Your task to perform on an android device: change alarm snooze length Image 0: 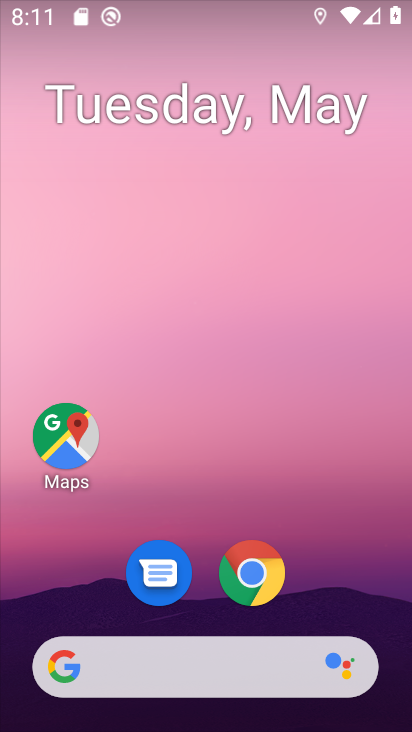
Step 0: drag from (392, 690) to (374, 325)
Your task to perform on an android device: change alarm snooze length Image 1: 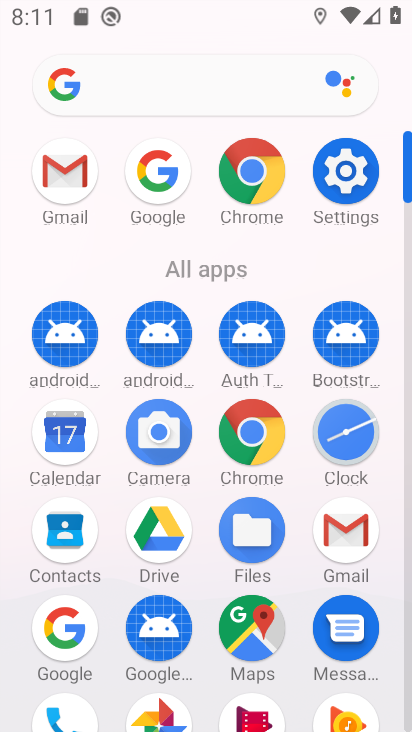
Step 1: click (342, 453)
Your task to perform on an android device: change alarm snooze length Image 2: 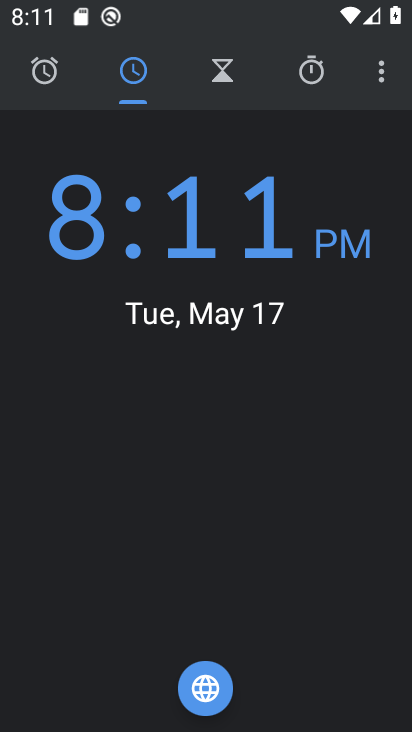
Step 2: click (379, 71)
Your task to perform on an android device: change alarm snooze length Image 3: 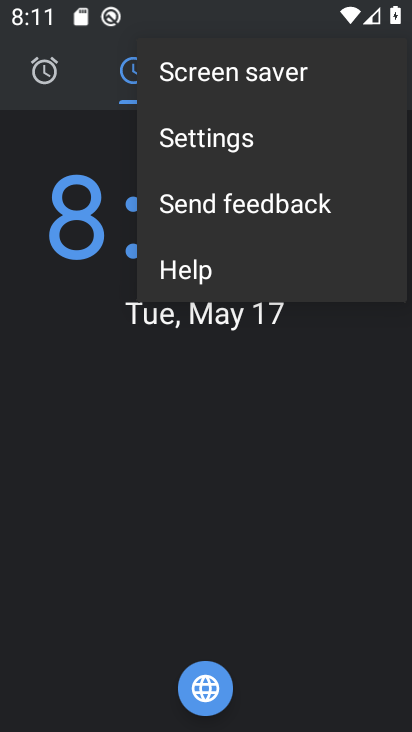
Step 3: click (186, 150)
Your task to perform on an android device: change alarm snooze length Image 4: 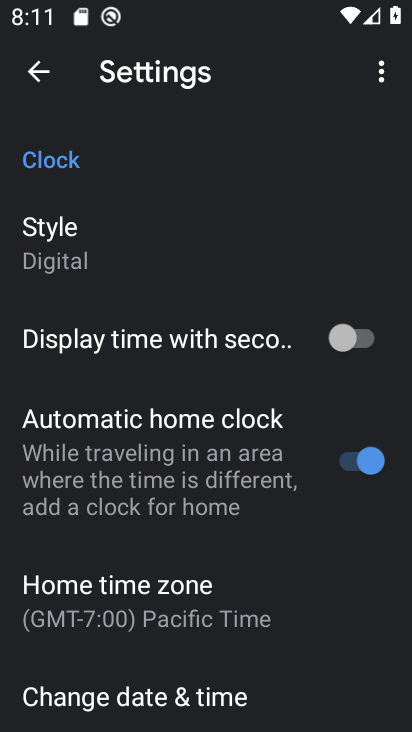
Step 4: drag from (275, 651) to (325, 309)
Your task to perform on an android device: change alarm snooze length Image 5: 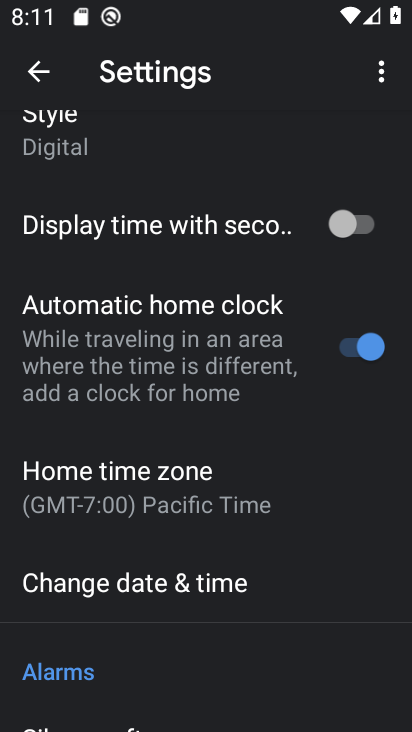
Step 5: drag from (183, 670) to (214, 440)
Your task to perform on an android device: change alarm snooze length Image 6: 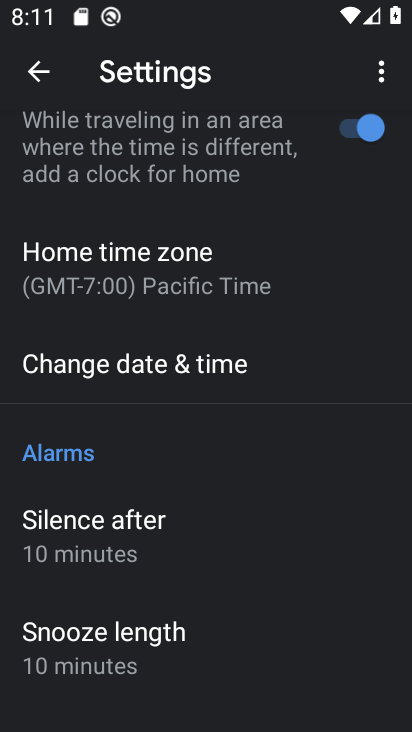
Step 6: click (106, 643)
Your task to perform on an android device: change alarm snooze length Image 7: 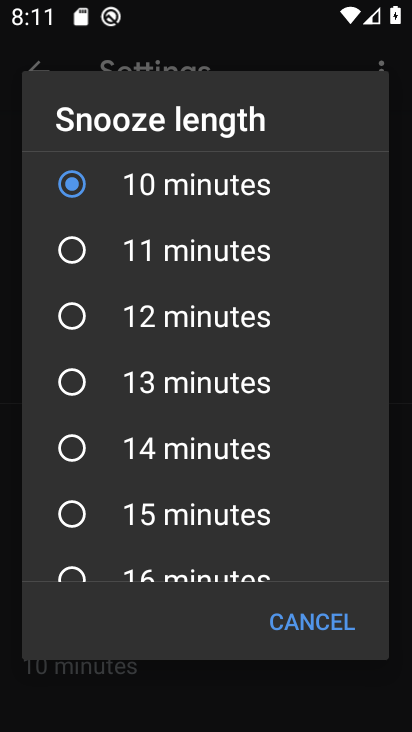
Step 7: click (69, 381)
Your task to perform on an android device: change alarm snooze length Image 8: 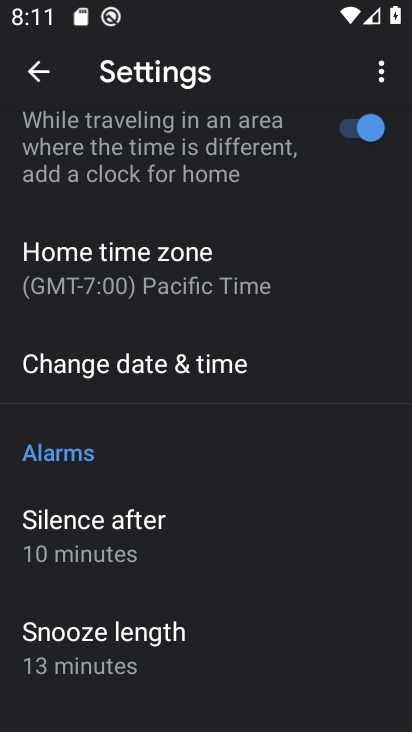
Step 8: task complete